Your task to perform on an android device: turn on bluetooth scan Image 0: 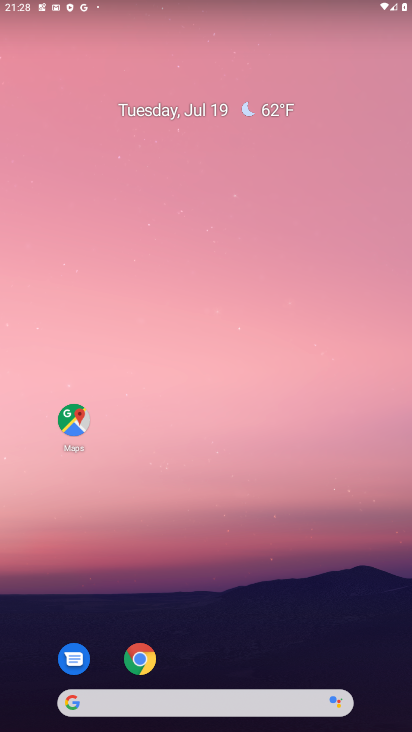
Step 0: press home button
Your task to perform on an android device: turn on bluetooth scan Image 1: 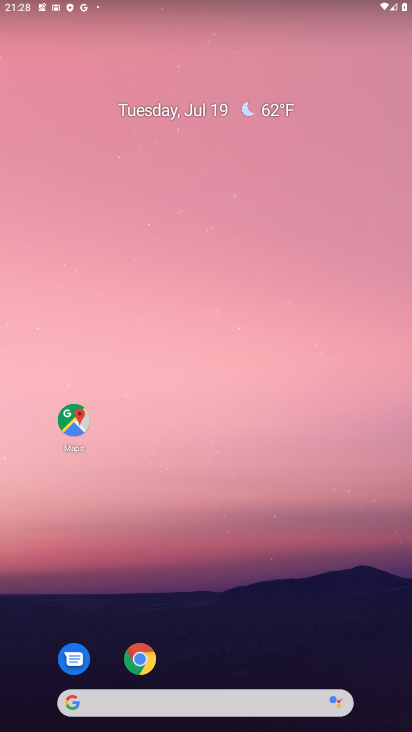
Step 1: drag from (256, 675) to (260, 521)
Your task to perform on an android device: turn on bluetooth scan Image 2: 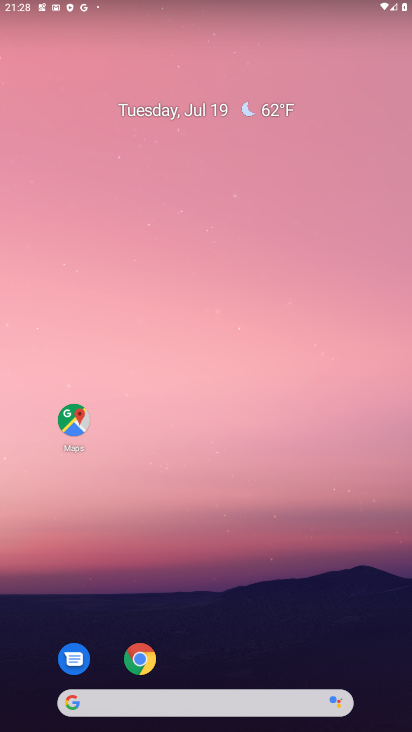
Step 2: drag from (291, 649) to (297, 194)
Your task to perform on an android device: turn on bluetooth scan Image 3: 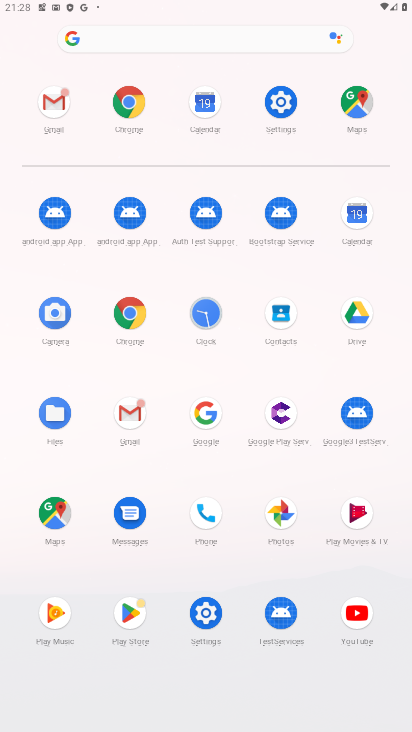
Step 3: click (290, 104)
Your task to perform on an android device: turn on bluetooth scan Image 4: 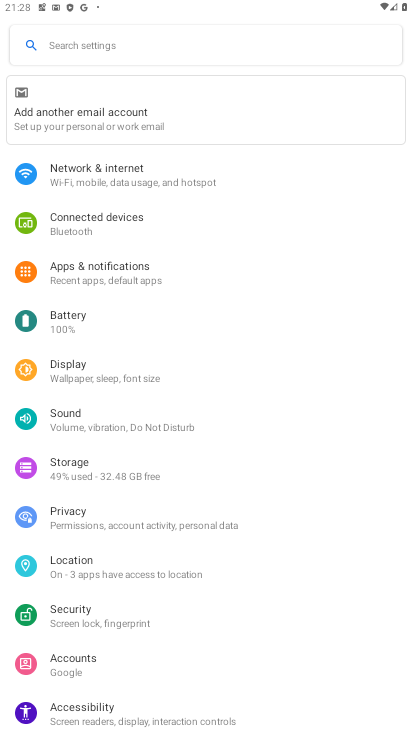
Step 4: drag from (99, 613) to (89, 222)
Your task to perform on an android device: turn on bluetooth scan Image 5: 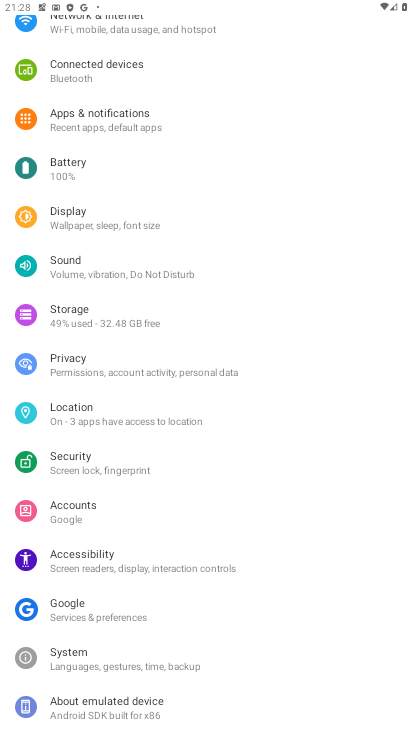
Step 5: click (89, 405)
Your task to perform on an android device: turn on bluetooth scan Image 6: 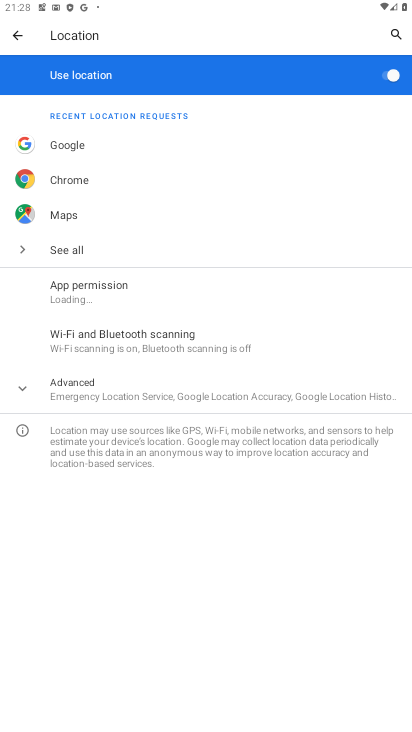
Step 6: click (77, 334)
Your task to perform on an android device: turn on bluetooth scan Image 7: 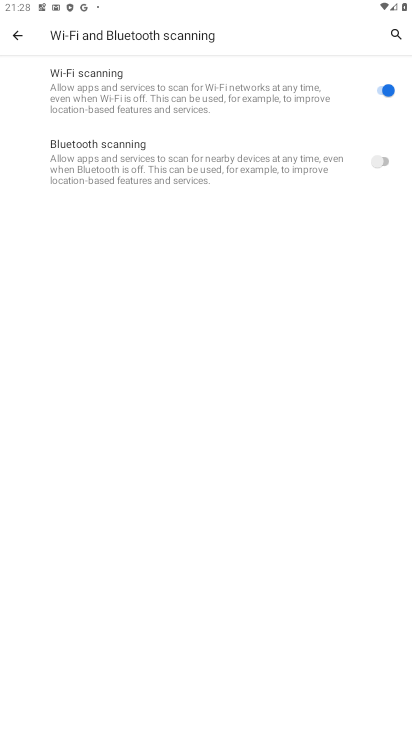
Step 7: click (117, 150)
Your task to perform on an android device: turn on bluetooth scan Image 8: 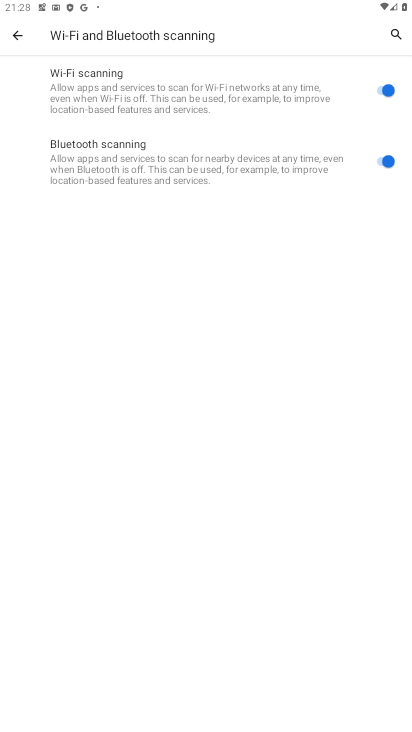
Step 8: task complete